Your task to perform on an android device: set an alarm Image 0: 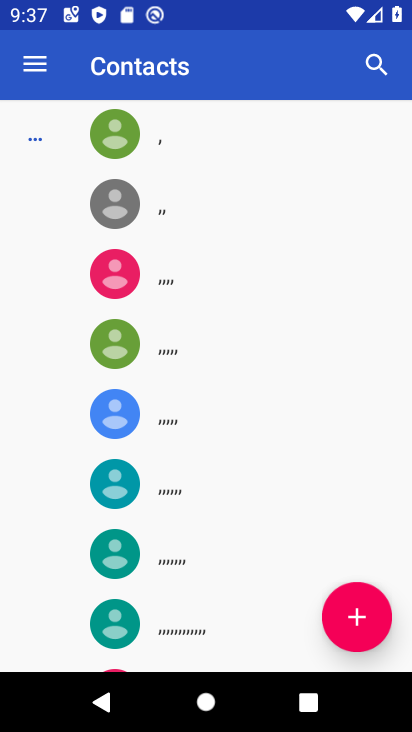
Step 0: press home button
Your task to perform on an android device: set an alarm Image 1: 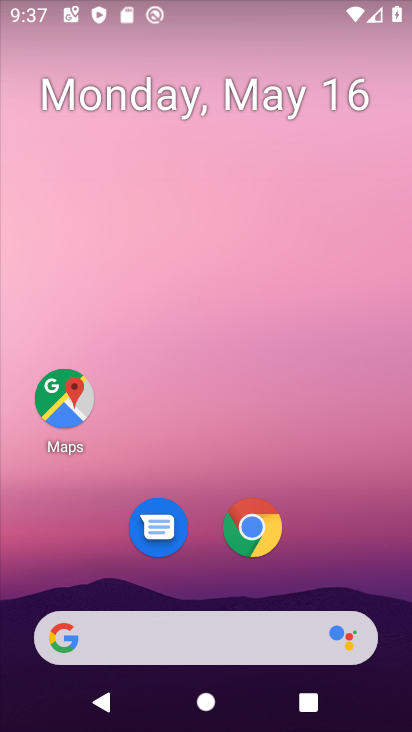
Step 1: drag from (340, 550) to (163, 29)
Your task to perform on an android device: set an alarm Image 2: 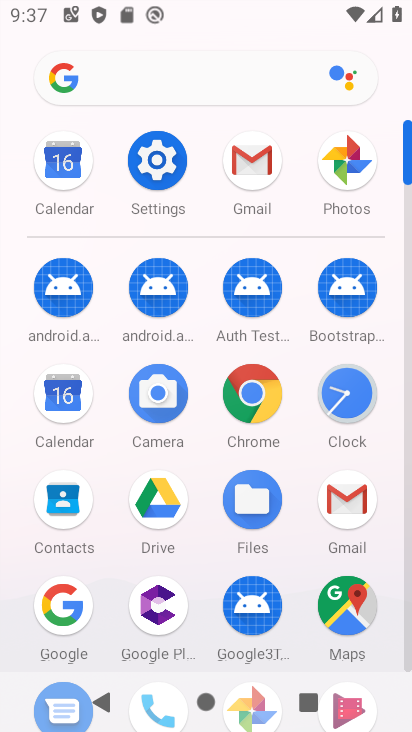
Step 2: click (340, 399)
Your task to perform on an android device: set an alarm Image 3: 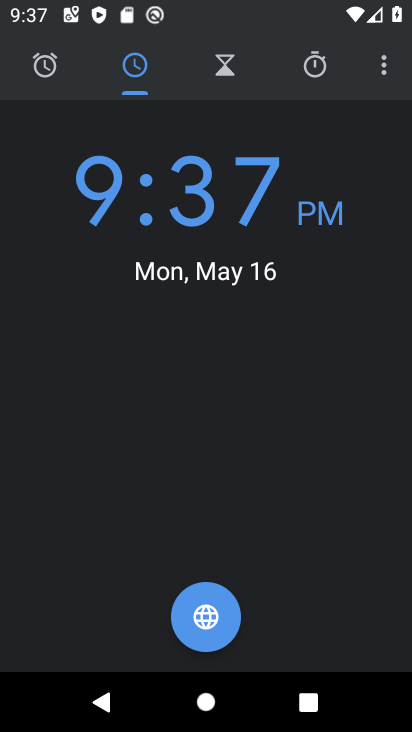
Step 3: click (52, 71)
Your task to perform on an android device: set an alarm Image 4: 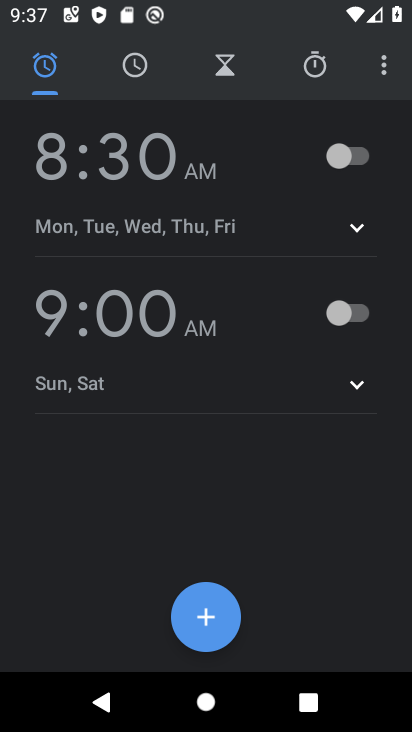
Step 4: click (200, 616)
Your task to perform on an android device: set an alarm Image 5: 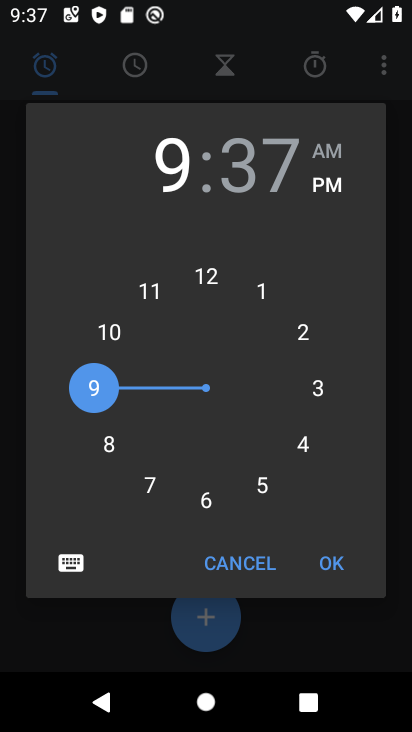
Step 5: click (210, 504)
Your task to perform on an android device: set an alarm Image 6: 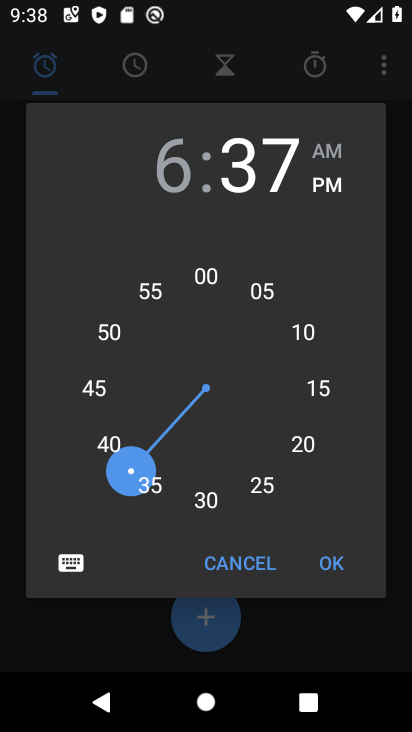
Step 6: click (218, 269)
Your task to perform on an android device: set an alarm Image 7: 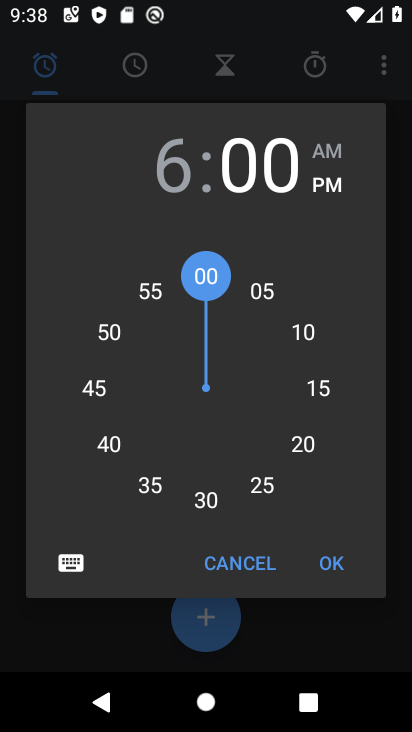
Step 7: click (335, 156)
Your task to perform on an android device: set an alarm Image 8: 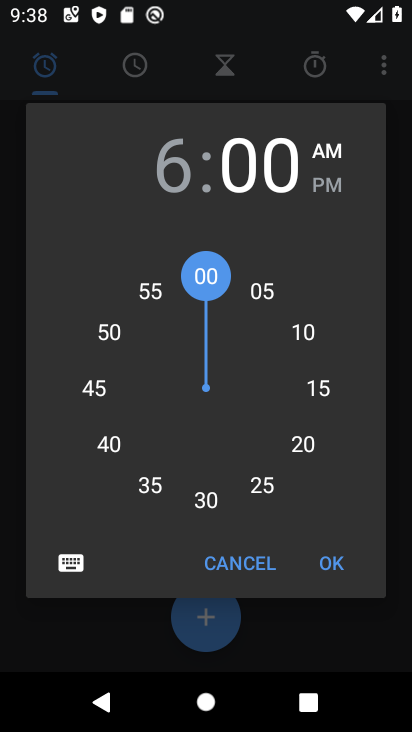
Step 8: click (336, 565)
Your task to perform on an android device: set an alarm Image 9: 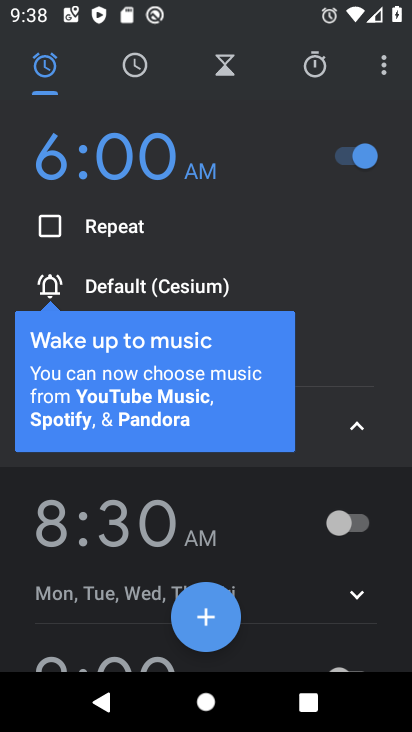
Step 9: task complete